Your task to perform on an android device: stop showing notifications on the lock screen Image 0: 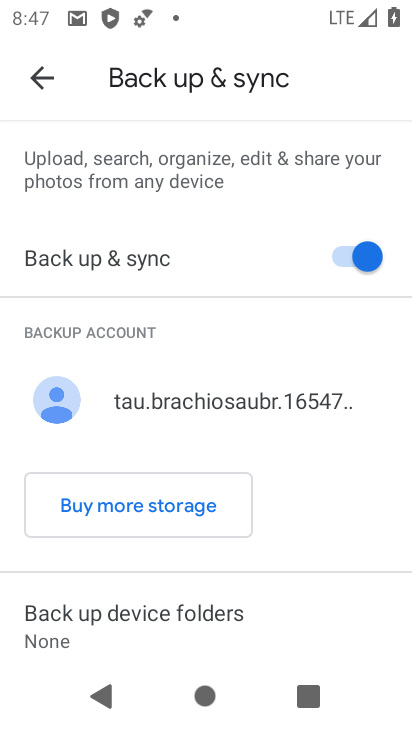
Step 0: press back button
Your task to perform on an android device: stop showing notifications on the lock screen Image 1: 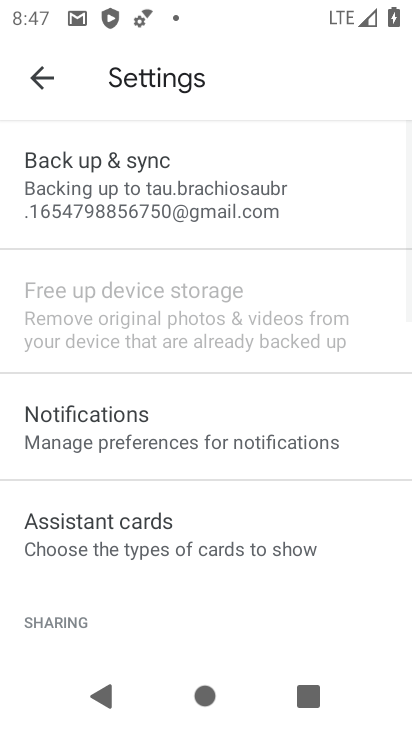
Step 1: press back button
Your task to perform on an android device: stop showing notifications on the lock screen Image 2: 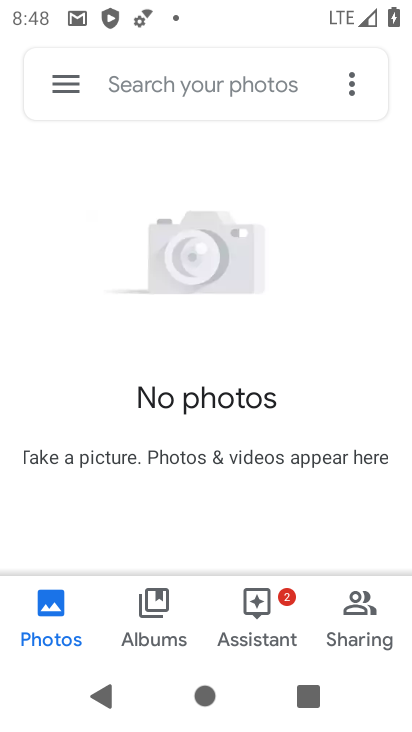
Step 2: press back button
Your task to perform on an android device: stop showing notifications on the lock screen Image 3: 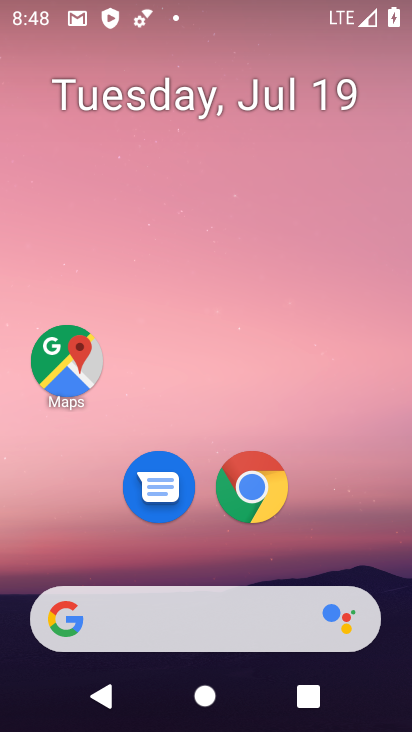
Step 3: drag from (213, 401) to (234, 13)
Your task to perform on an android device: stop showing notifications on the lock screen Image 4: 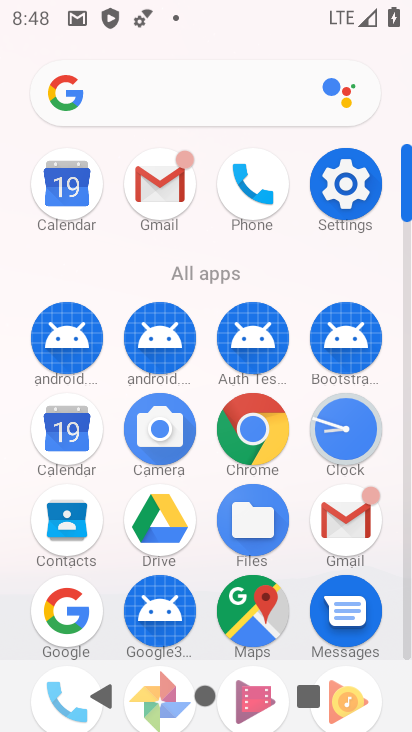
Step 4: click (358, 188)
Your task to perform on an android device: stop showing notifications on the lock screen Image 5: 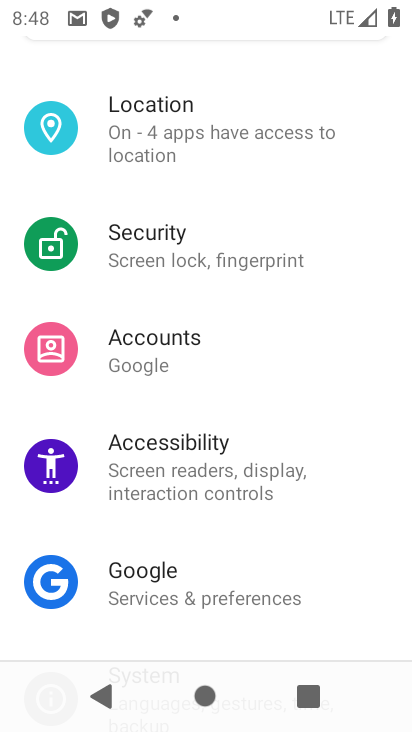
Step 5: drag from (253, 186) to (246, 724)
Your task to perform on an android device: stop showing notifications on the lock screen Image 6: 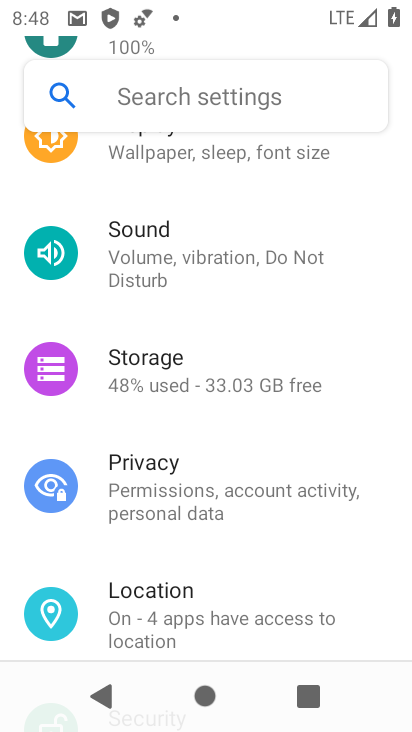
Step 6: drag from (266, 191) to (223, 687)
Your task to perform on an android device: stop showing notifications on the lock screen Image 7: 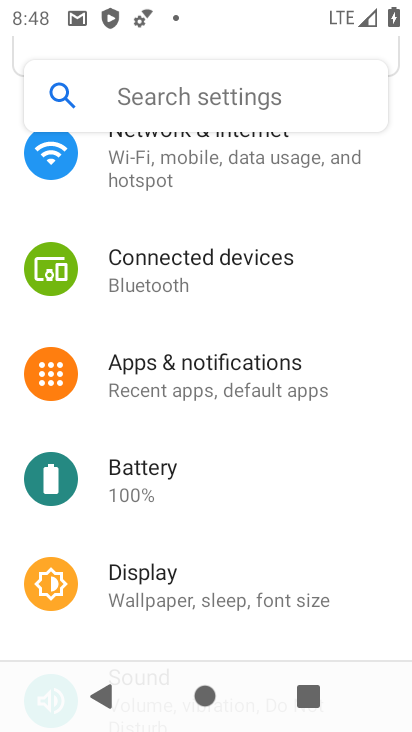
Step 7: drag from (223, 194) to (207, 631)
Your task to perform on an android device: stop showing notifications on the lock screen Image 8: 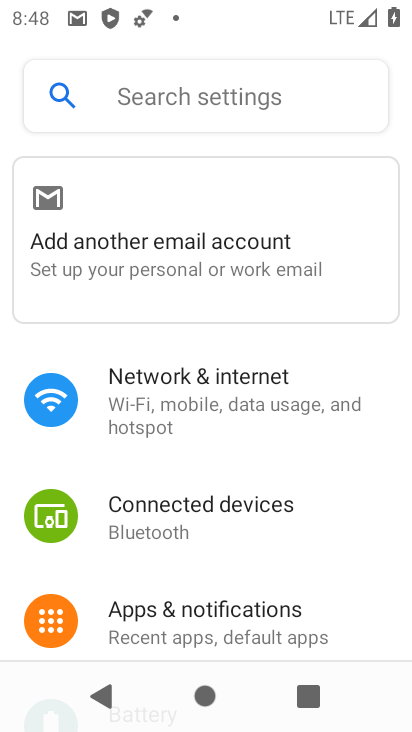
Step 8: click (198, 607)
Your task to perform on an android device: stop showing notifications on the lock screen Image 9: 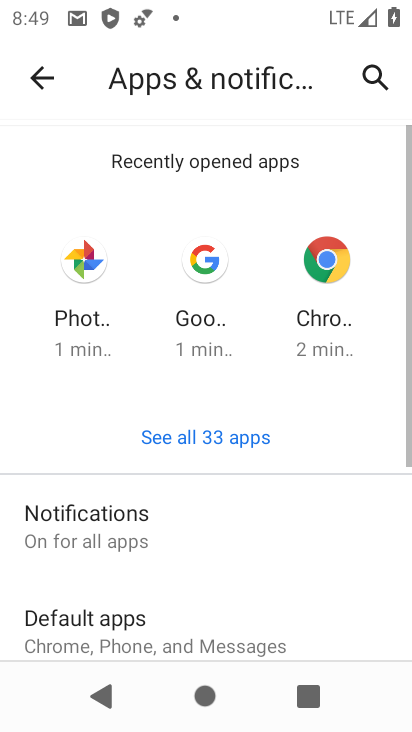
Step 9: drag from (181, 445) to (238, 250)
Your task to perform on an android device: stop showing notifications on the lock screen Image 10: 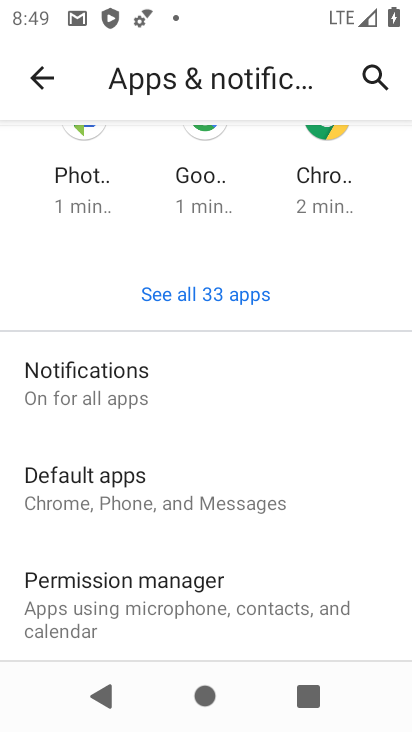
Step 10: click (141, 387)
Your task to perform on an android device: stop showing notifications on the lock screen Image 11: 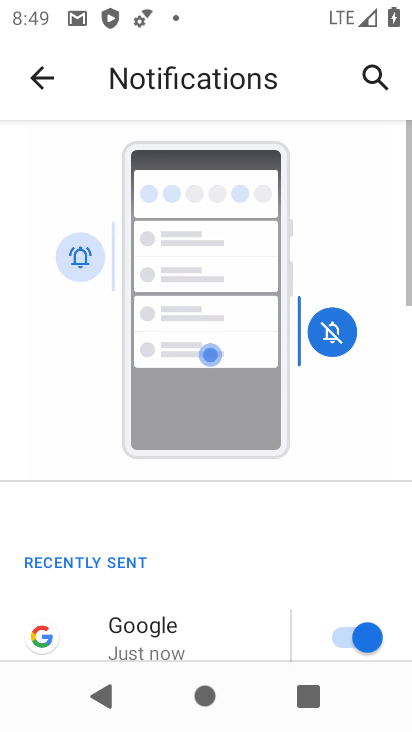
Step 11: drag from (120, 635) to (259, 40)
Your task to perform on an android device: stop showing notifications on the lock screen Image 12: 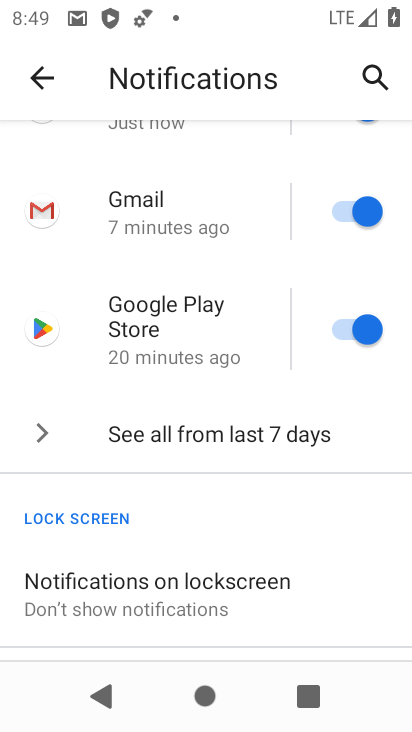
Step 12: click (149, 599)
Your task to perform on an android device: stop showing notifications on the lock screen Image 13: 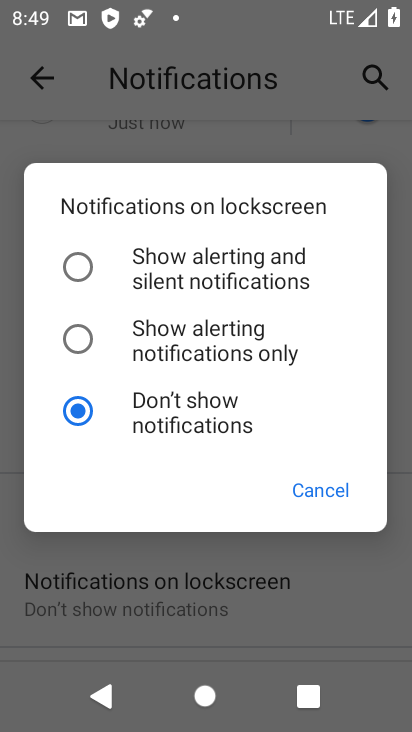
Step 13: task complete